Your task to perform on an android device: turn notification dots off Image 0: 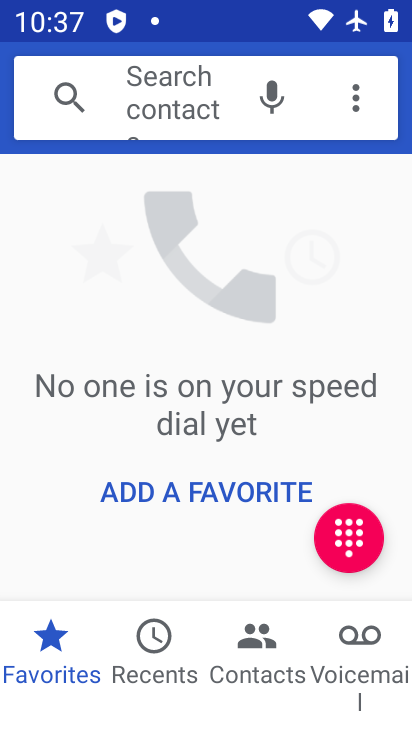
Step 0: press back button
Your task to perform on an android device: turn notification dots off Image 1: 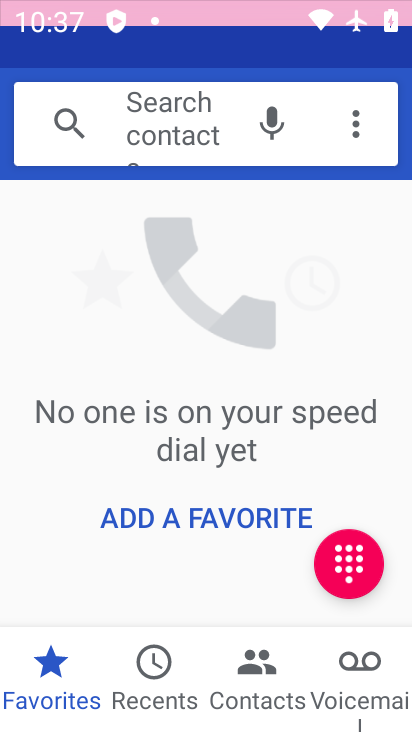
Step 1: press back button
Your task to perform on an android device: turn notification dots off Image 2: 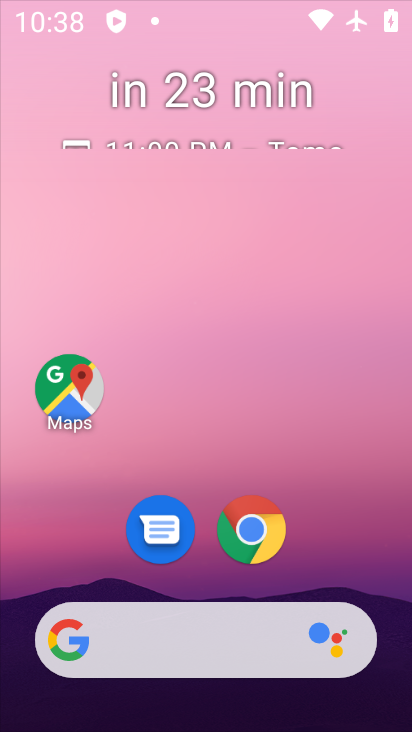
Step 2: press back button
Your task to perform on an android device: turn notification dots off Image 3: 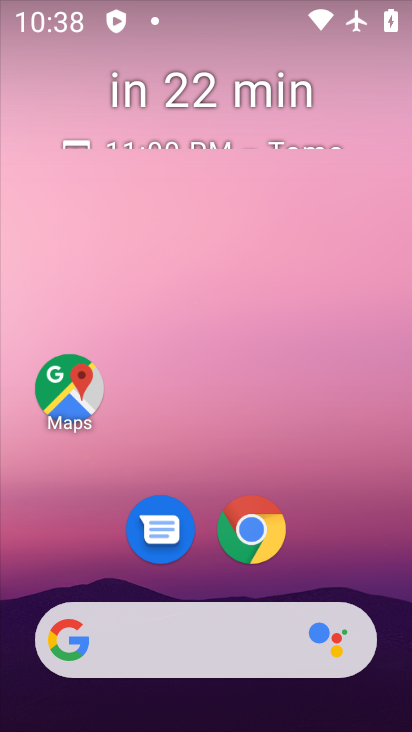
Step 3: drag from (303, 571) to (125, 289)
Your task to perform on an android device: turn notification dots off Image 4: 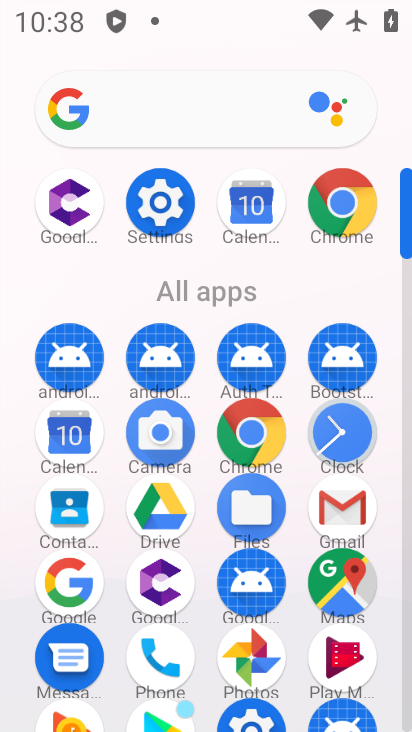
Step 4: click (158, 195)
Your task to perform on an android device: turn notification dots off Image 5: 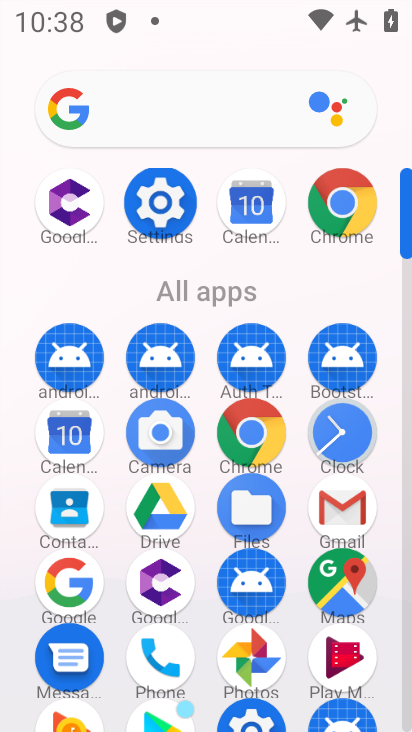
Step 5: click (158, 195)
Your task to perform on an android device: turn notification dots off Image 6: 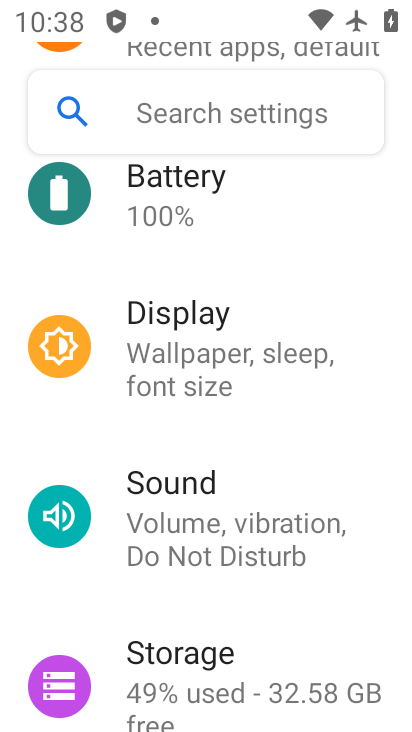
Step 6: drag from (232, 523) to (168, 171)
Your task to perform on an android device: turn notification dots off Image 7: 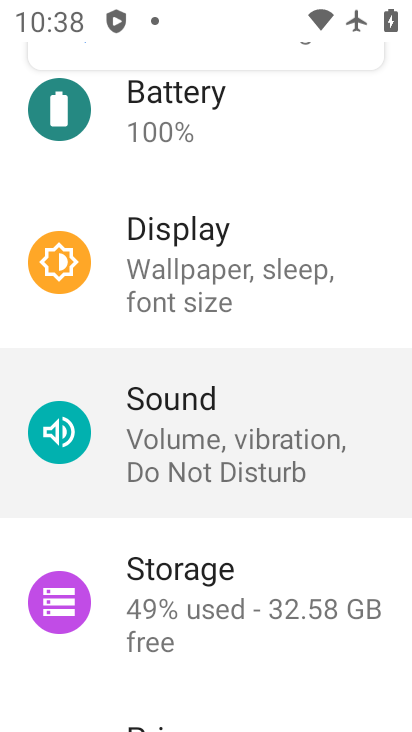
Step 7: drag from (270, 432) to (191, 228)
Your task to perform on an android device: turn notification dots off Image 8: 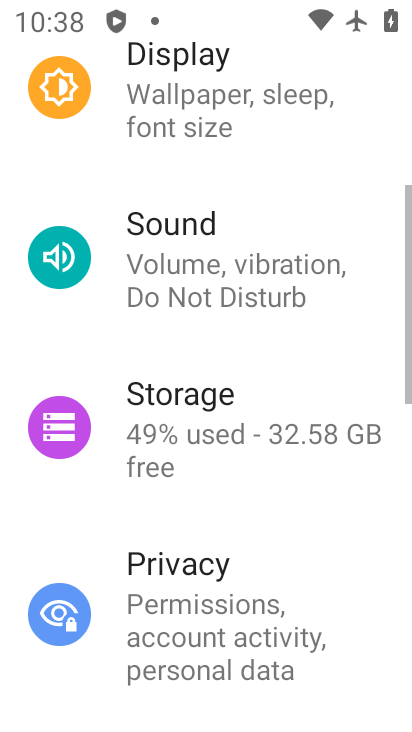
Step 8: drag from (235, 432) to (168, 253)
Your task to perform on an android device: turn notification dots off Image 9: 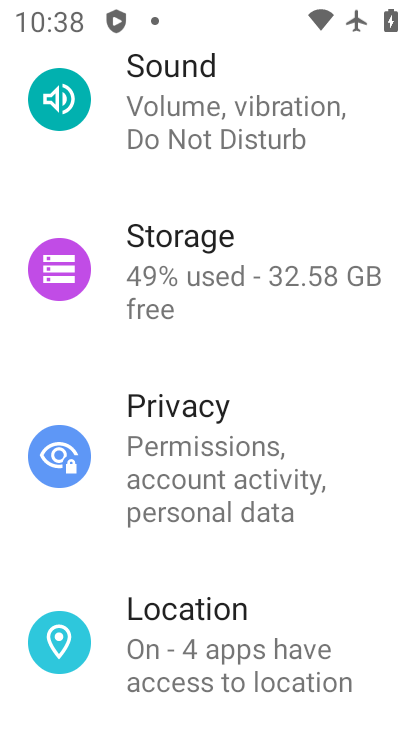
Step 9: drag from (258, 560) to (180, 166)
Your task to perform on an android device: turn notification dots off Image 10: 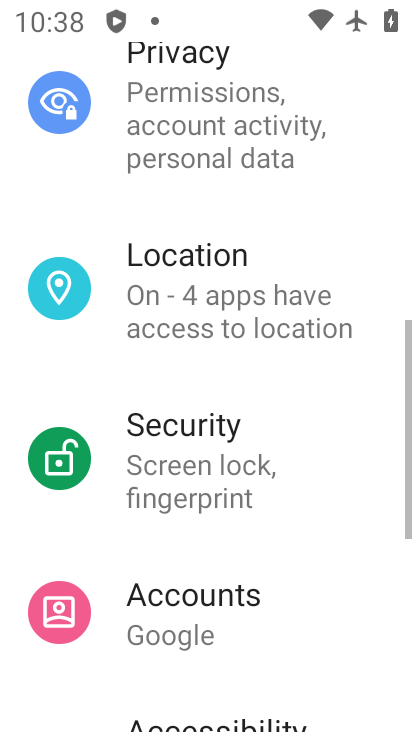
Step 10: drag from (294, 563) to (189, 191)
Your task to perform on an android device: turn notification dots off Image 11: 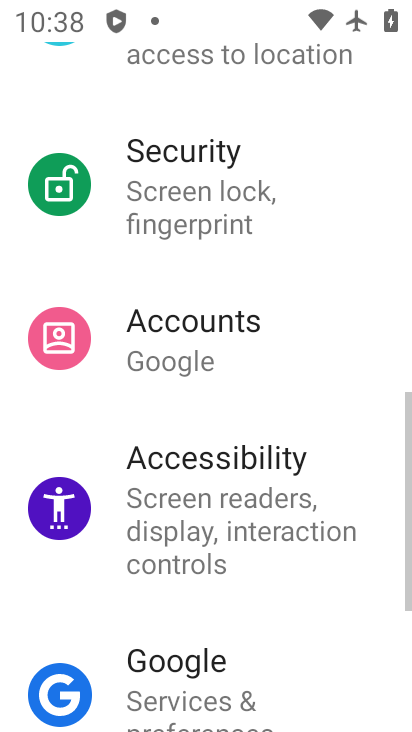
Step 11: drag from (176, 408) to (164, 255)
Your task to perform on an android device: turn notification dots off Image 12: 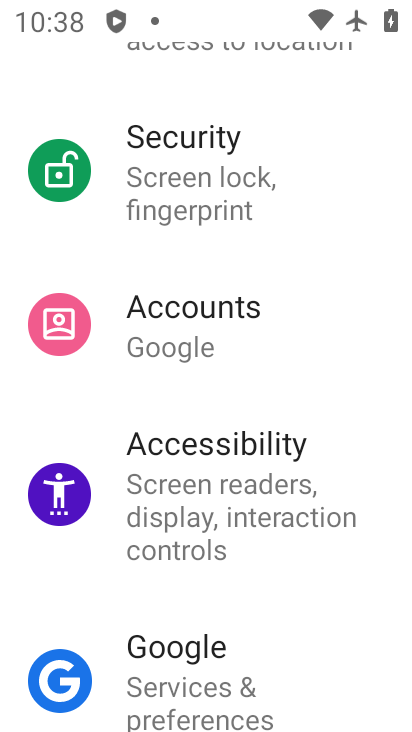
Step 12: drag from (182, 587) to (162, 321)
Your task to perform on an android device: turn notification dots off Image 13: 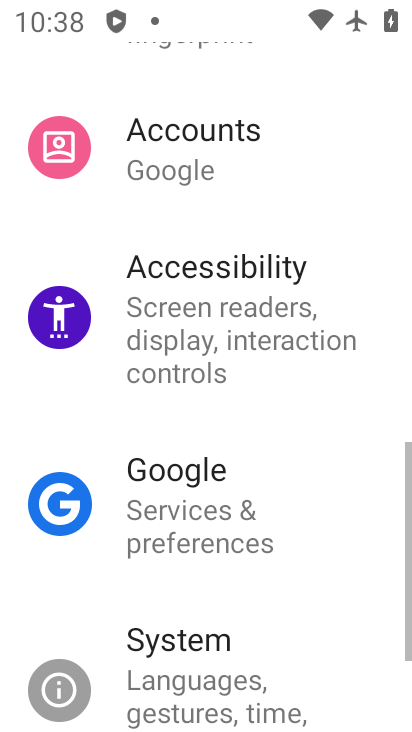
Step 13: drag from (260, 478) to (206, 133)
Your task to perform on an android device: turn notification dots off Image 14: 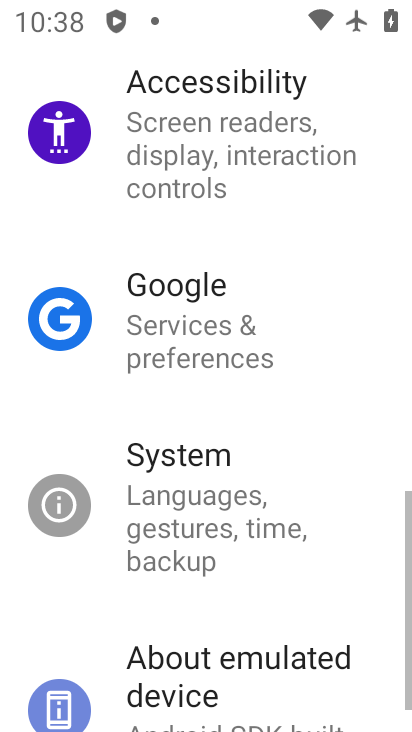
Step 14: drag from (217, 497) to (166, 164)
Your task to perform on an android device: turn notification dots off Image 15: 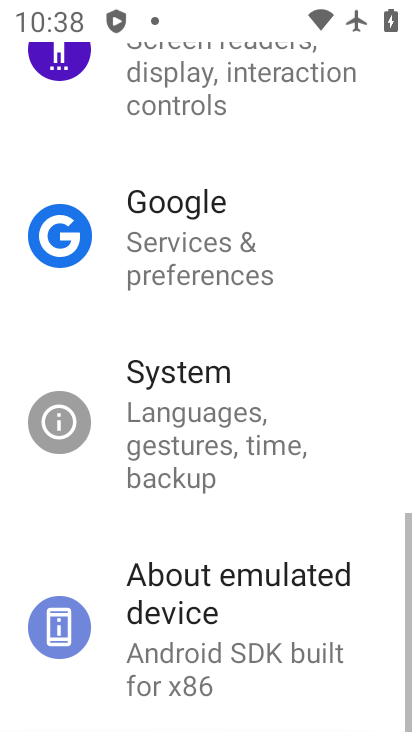
Step 15: drag from (189, 519) to (88, 119)
Your task to perform on an android device: turn notification dots off Image 16: 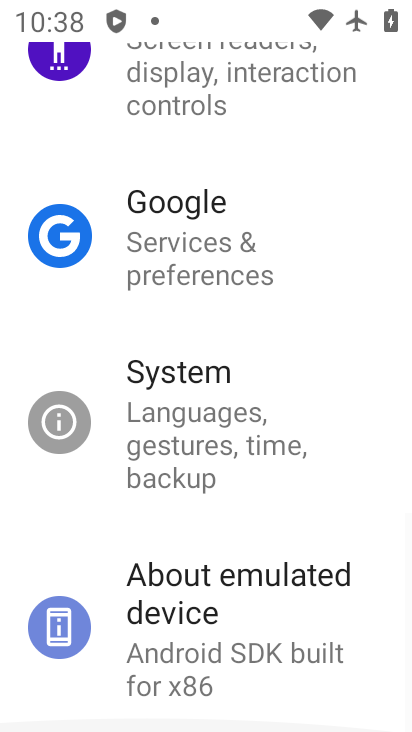
Step 16: drag from (182, 521) to (130, 157)
Your task to perform on an android device: turn notification dots off Image 17: 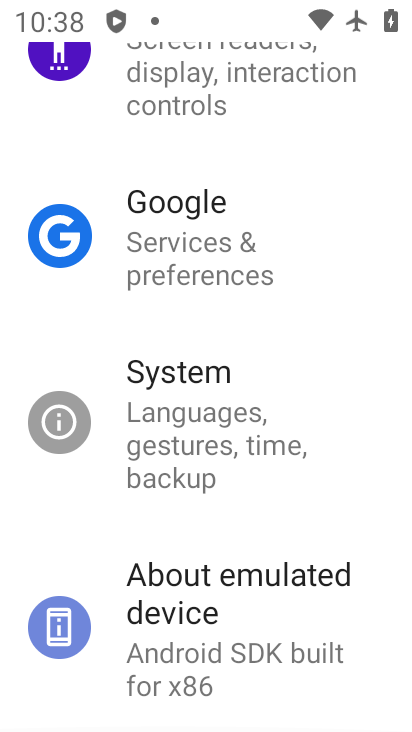
Step 17: drag from (190, 462) to (170, 321)
Your task to perform on an android device: turn notification dots off Image 18: 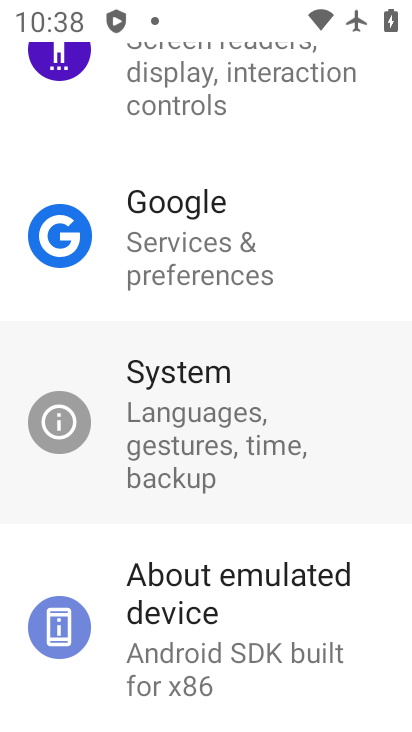
Step 18: drag from (229, 493) to (186, 151)
Your task to perform on an android device: turn notification dots off Image 19: 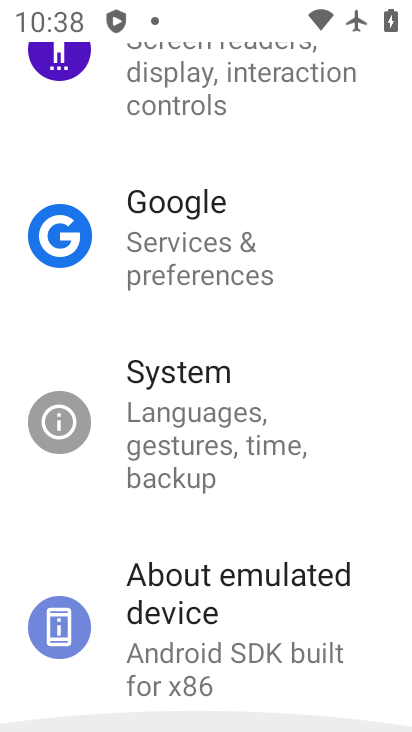
Step 19: drag from (252, 523) to (160, 219)
Your task to perform on an android device: turn notification dots off Image 20: 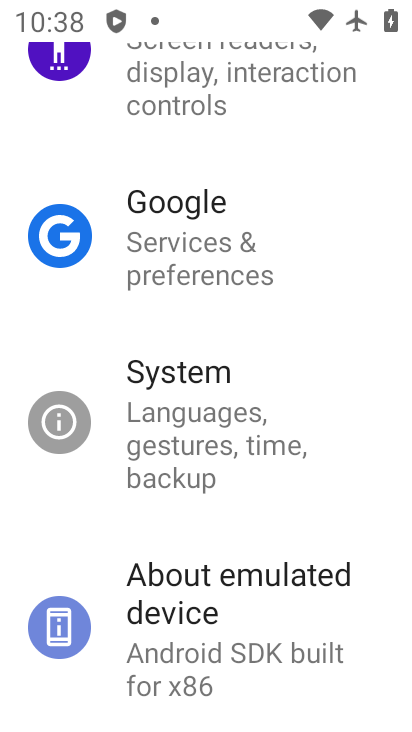
Step 20: drag from (205, 331) to (228, 482)
Your task to perform on an android device: turn notification dots off Image 21: 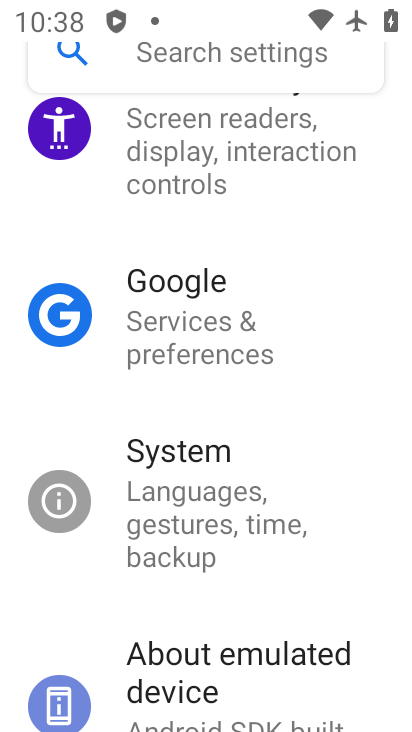
Step 21: drag from (204, 240) to (264, 533)
Your task to perform on an android device: turn notification dots off Image 22: 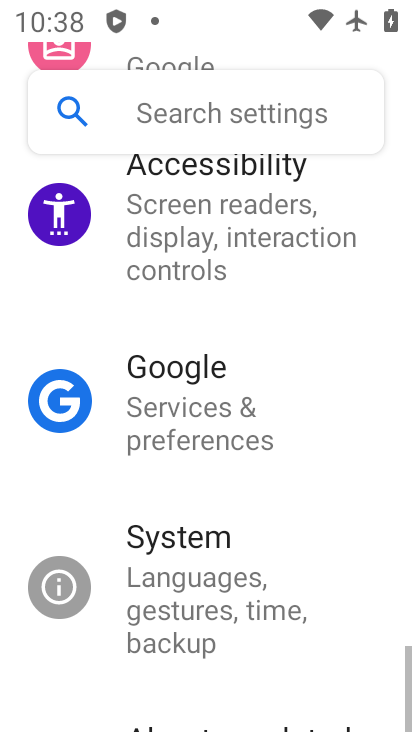
Step 22: drag from (199, 241) to (235, 478)
Your task to perform on an android device: turn notification dots off Image 23: 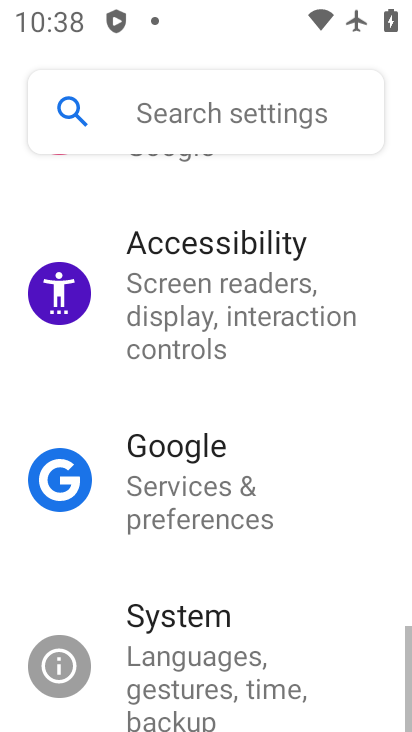
Step 23: drag from (217, 455) to (231, 538)
Your task to perform on an android device: turn notification dots off Image 24: 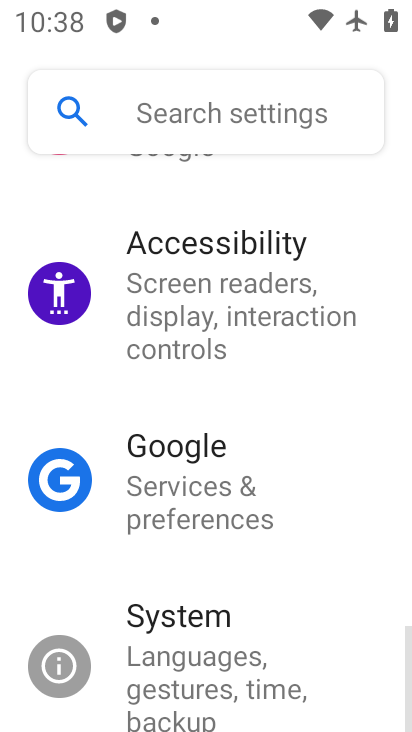
Step 24: drag from (164, 240) to (192, 565)
Your task to perform on an android device: turn notification dots off Image 25: 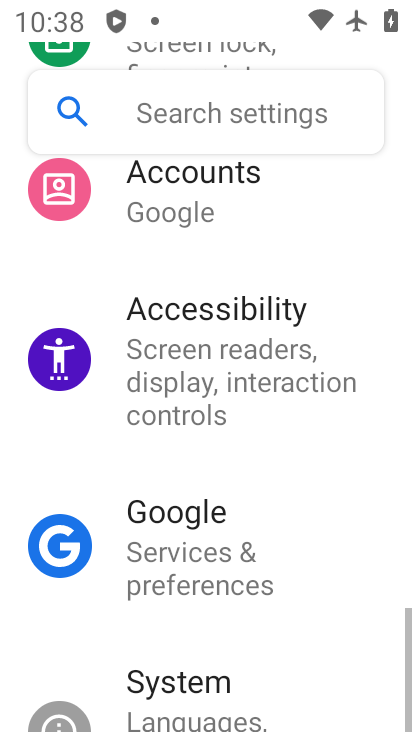
Step 25: drag from (162, 339) to (206, 526)
Your task to perform on an android device: turn notification dots off Image 26: 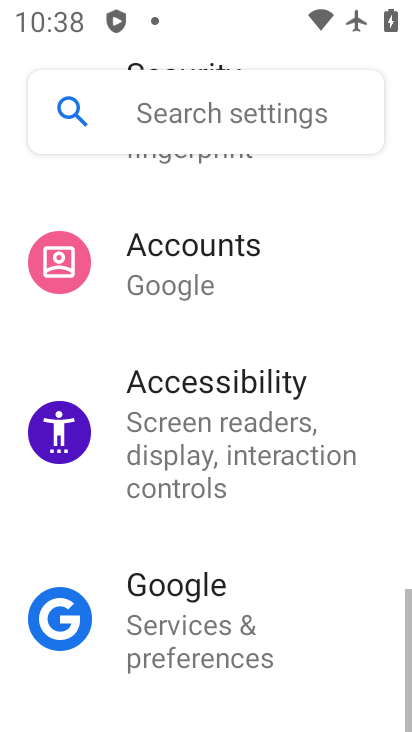
Step 26: drag from (165, 271) to (200, 514)
Your task to perform on an android device: turn notification dots off Image 27: 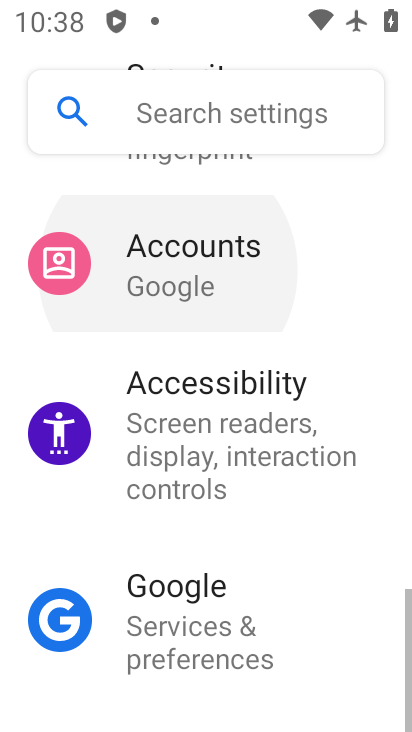
Step 27: drag from (155, 292) to (223, 544)
Your task to perform on an android device: turn notification dots off Image 28: 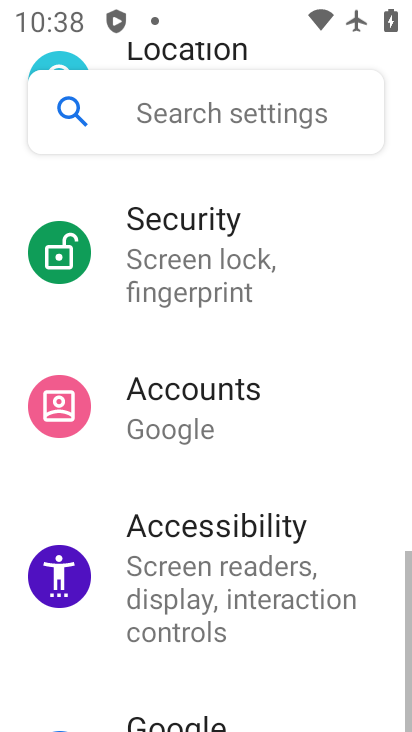
Step 28: drag from (222, 499) to (239, 558)
Your task to perform on an android device: turn notification dots off Image 29: 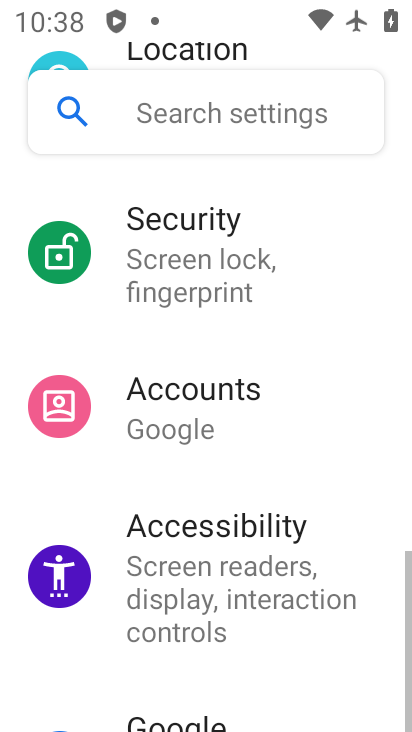
Step 29: drag from (203, 325) to (224, 542)
Your task to perform on an android device: turn notification dots off Image 30: 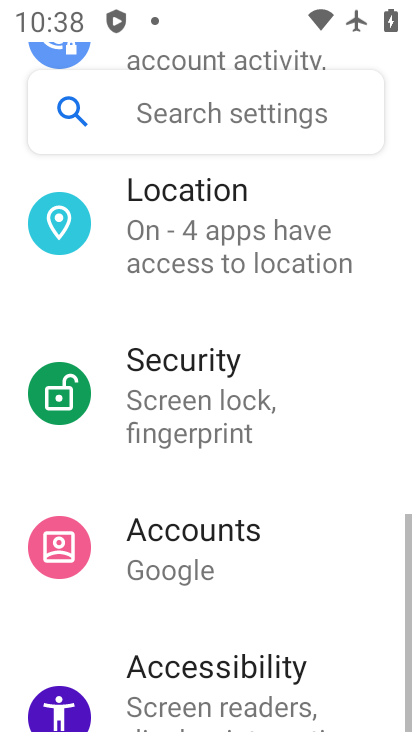
Step 30: drag from (206, 298) to (243, 557)
Your task to perform on an android device: turn notification dots off Image 31: 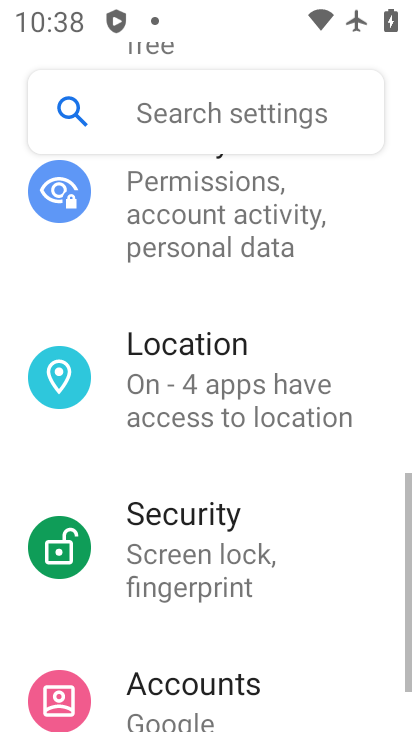
Step 31: click (228, 523)
Your task to perform on an android device: turn notification dots off Image 32: 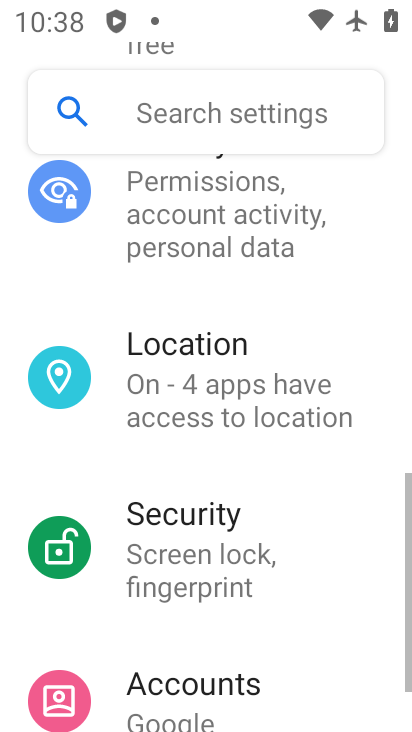
Step 32: drag from (156, 249) to (209, 521)
Your task to perform on an android device: turn notification dots off Image 33: 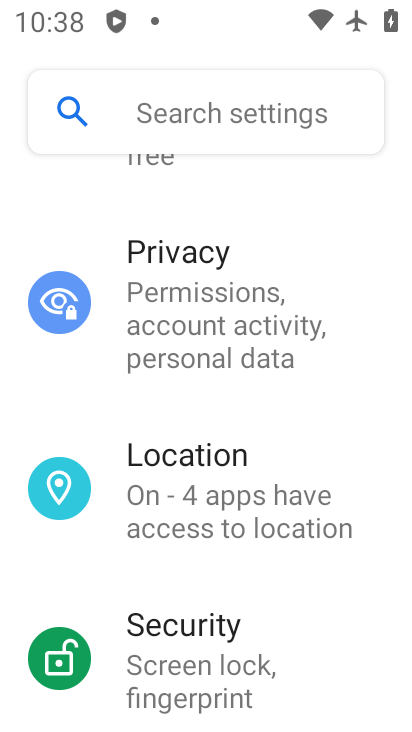
Step 33: drag from (210, 299) to (258, 552)
Your task to perform on an android device: turn notification dots off Image 34: 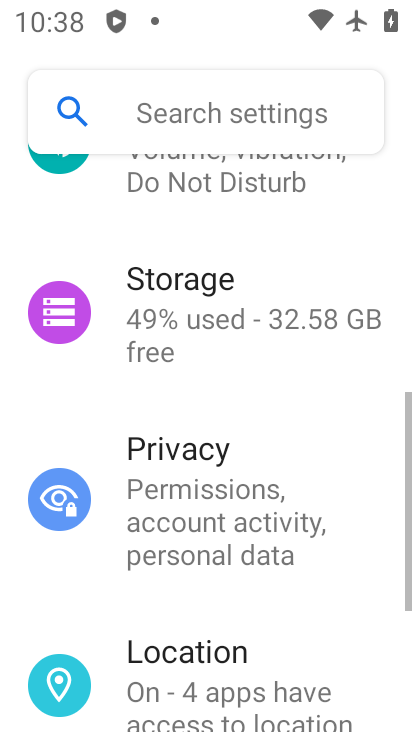
Step 34: drag from (160, 311) to (230, 548)
Your task to perform on an android device: turn notification dots off Image 35: 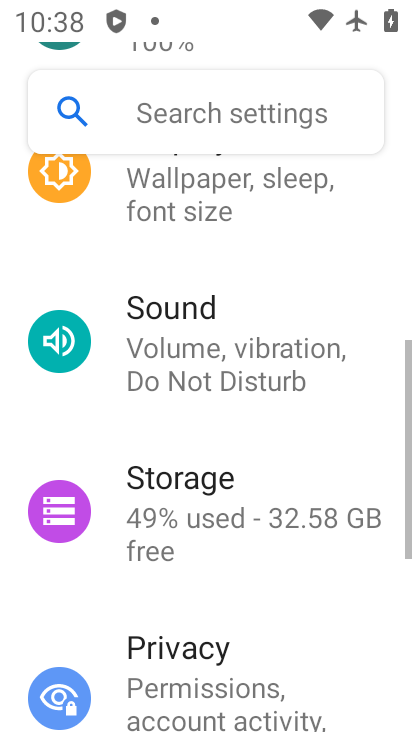
Step 35: drag from (191, 300) to (216, 603)
Your task to perform on an android device: turn notification dots off Image 36: 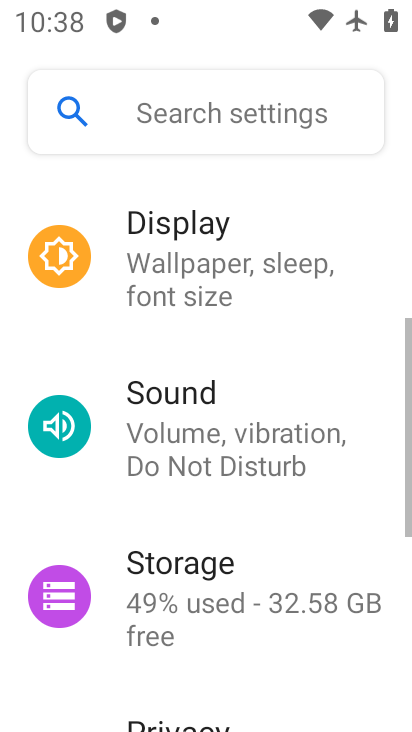
Step 36: drag from (197, 446) to (226, 568)
Your task to perform on an android device: turn notification dots off Image 37: 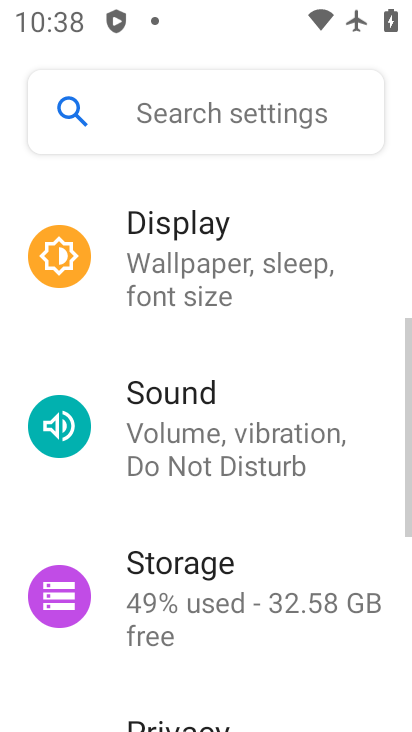
Step 37: drag from (149, 274) to (206, 613)
Your task to perform on an android device: turn notification dots off Image 38: 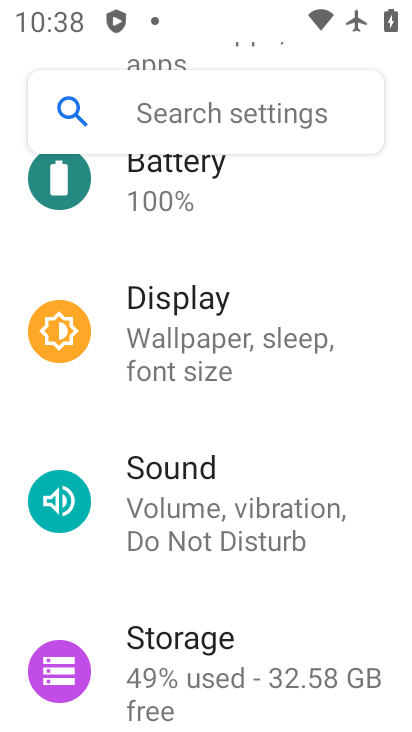
Step 38: drag from (184, 283) to (222, 432)
Your task to perform on an android device: turn notification dots off Image 39: 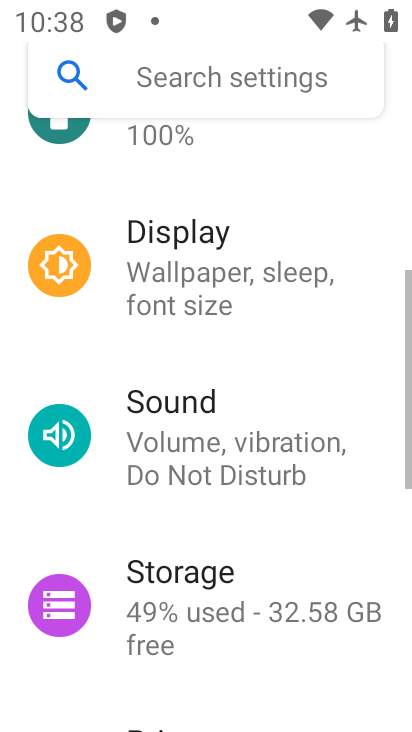
Step 39: drag from (165, 231) to (202, 449)
Your task to perform on an android device: turn notification dots off Image 40: 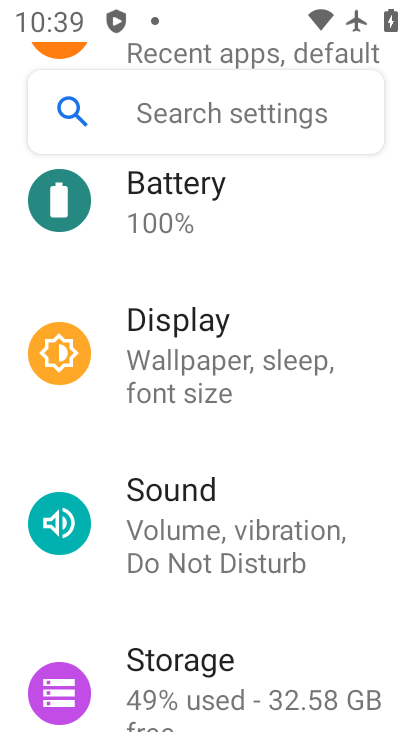
Step 40: drag from (185, 242) to (211, 587)
Your task to perform on an android device: turn notification dots off Image 41: 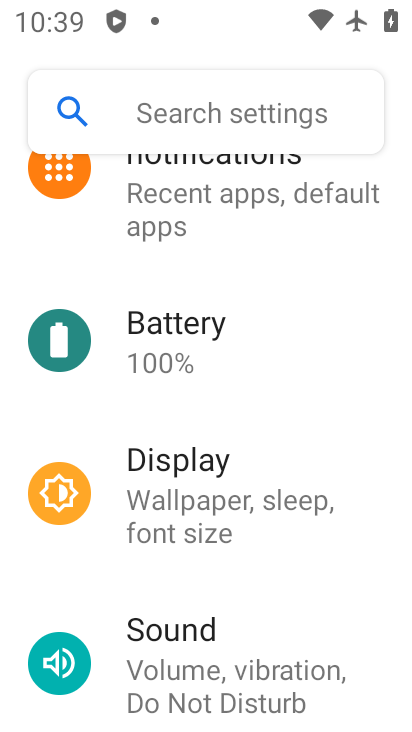
Step 41: click (291, 568)
Your task to perform on an android device: turn notification dots off Image 42: 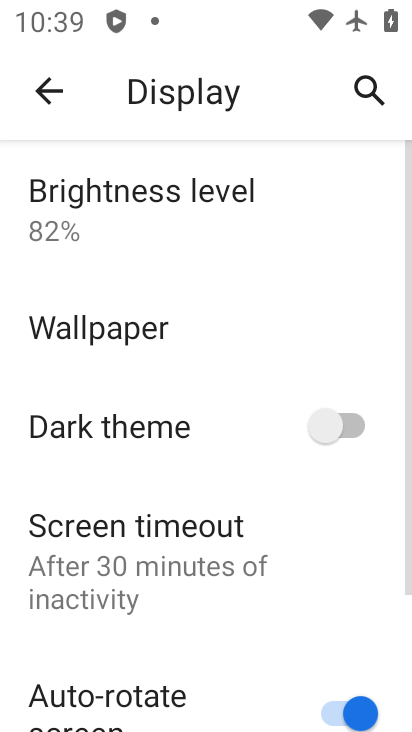
Step 42: click (41, 87)
Your task to perform on an android device: turn notification dots off Image 43: 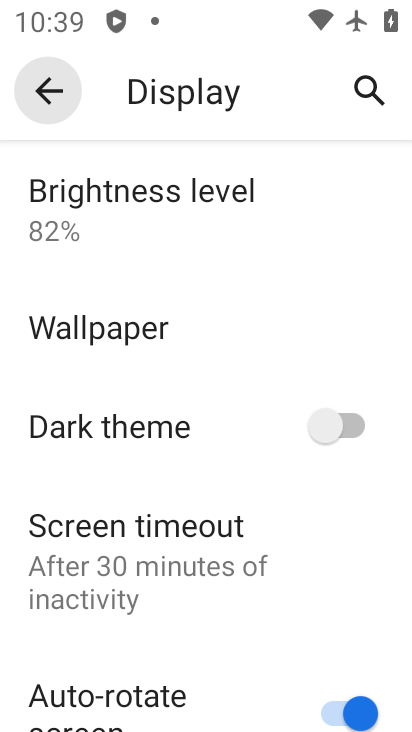
Step 43: click (43, 99)
Your task to perform on an android device: turn notification dots off Image 44: 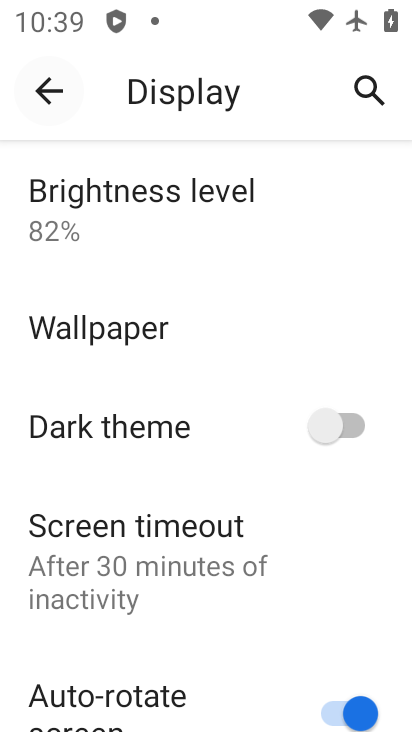
Step 44: click (43, 99)
Your task to perform on an android device: turn notification dots off Image 45: 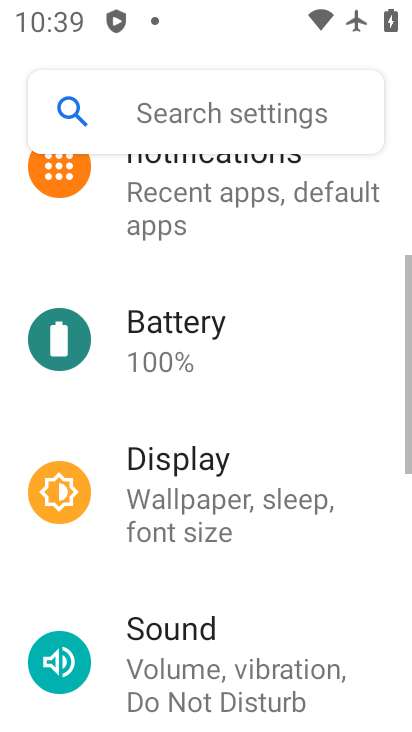
Step 45: drag from (186, 215) to (235, 545)
Your task to perform on an android device: turn notification dots off Image 46: 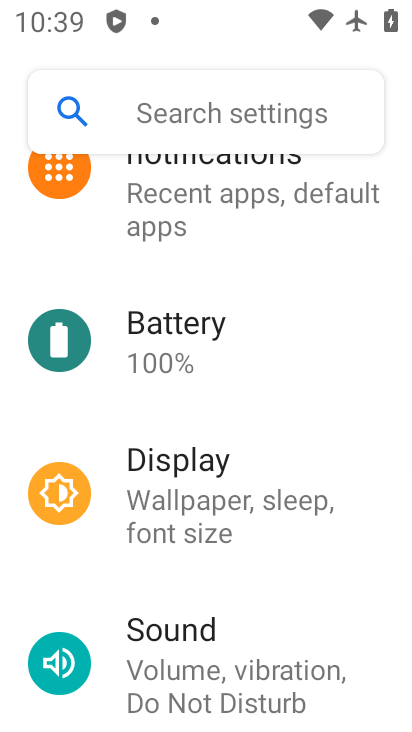
Step 46: drag from (219, 351) to (270, 590)
Your task to perform on an android device: turn notification dots off Image 47: 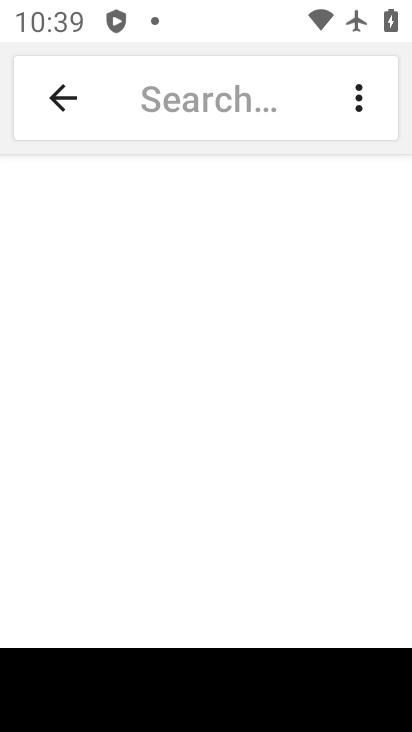
Step 47: click (53, 100)
Your task to perform on an android device: turn notification dots off Image 48: 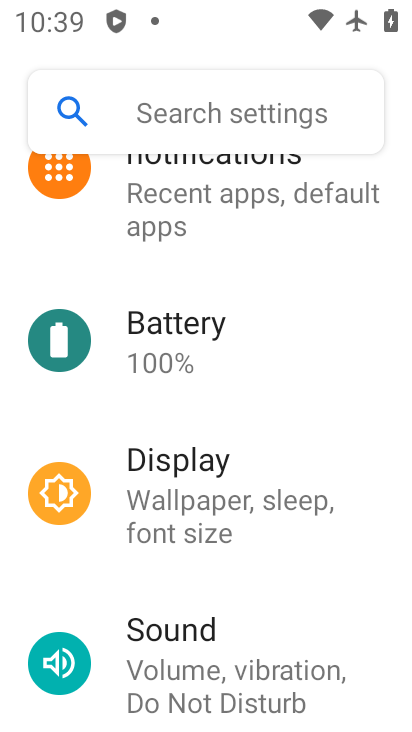
Step 48: click (182, 183)
Your task to perform on an android device: turn notification dots off Image 49: 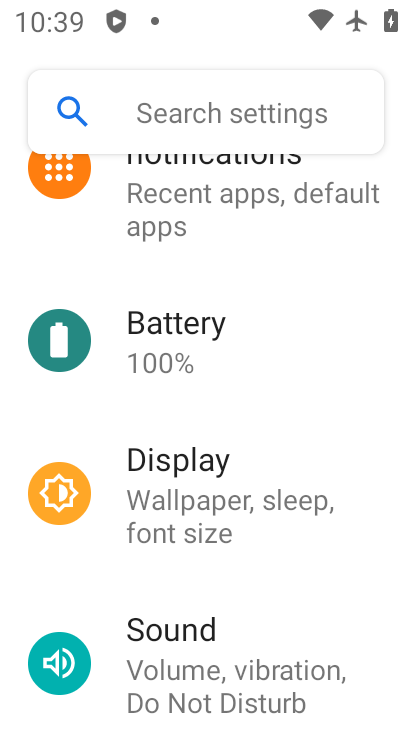
Step 49: click (182, 183)
Your task to perform on an android device: turn notification dots off Image 50: 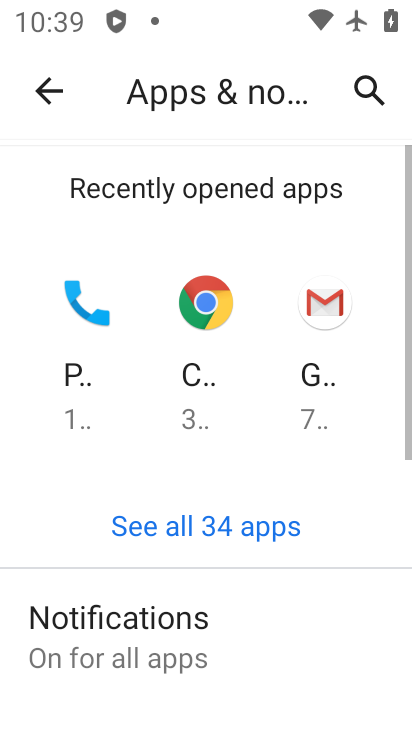
Step 50: drag from (205, 632) to (144, 285)
Your task to perform on an android device: turn notification dots off Image 51: 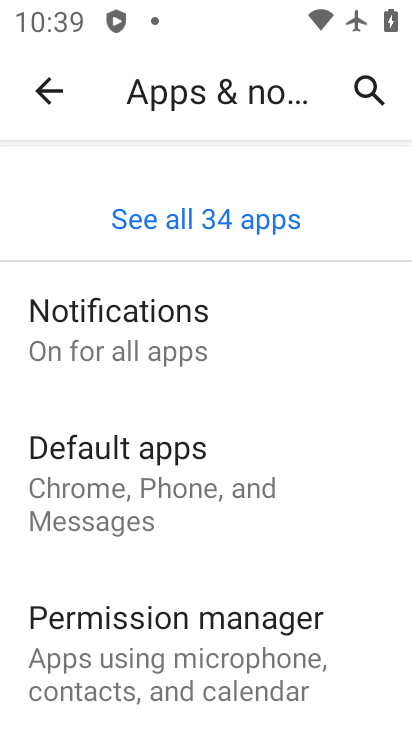
Step 51: click (116, 334)
Your task to perform on an android device: turn notification dots off Image 52: 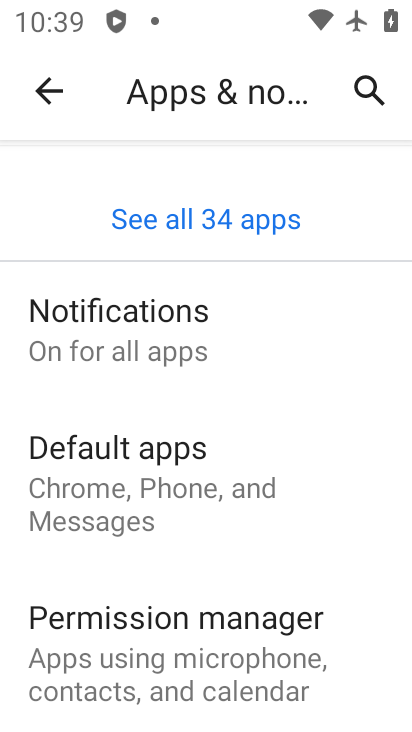
Step 52: click (116, 334)
Your task to perform on an android device: turn notification dots off Image 53: 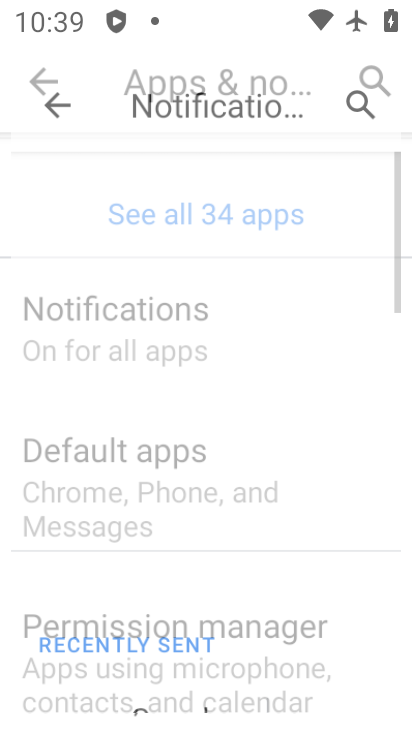
Step 53: click (116, 334)
Your task to perform on an android device: turn notification dots off Image 54: 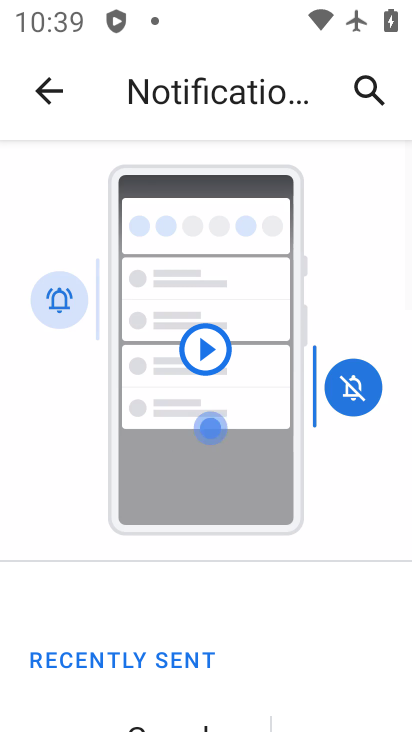
Step 54: drag from (271, 607) to (242, 123)
Your task to perform on an android device: turn notification dots off Image 55: 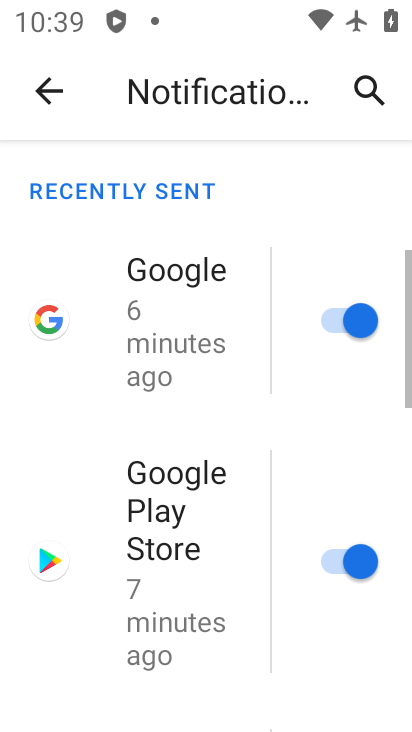
Step 55: drag from (268, 484) to (235, 96)
Your task to perform on an android device: turn notification dots off Image 56: 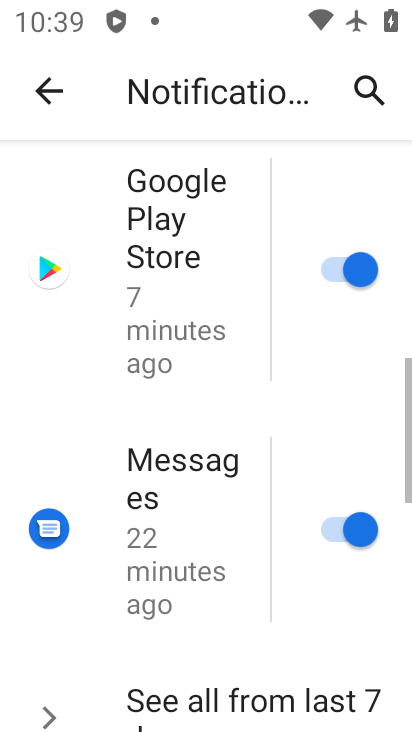
Step 56: drag from (302, 571) to (152, 50)
Your task to perform on an android device: turn notification dots off Image 57: 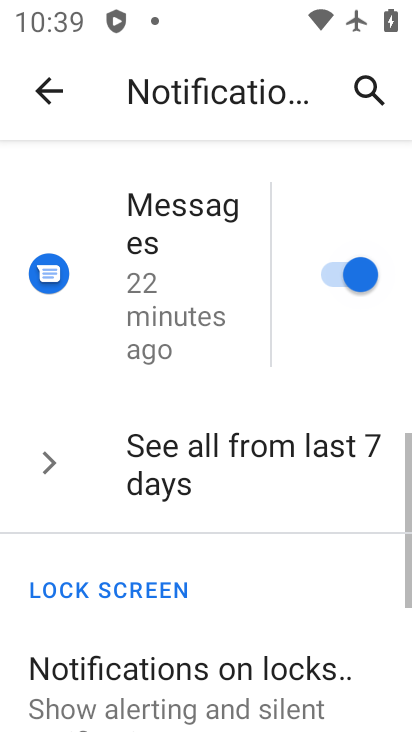
Step 57: drag from (236, 444) to (195, 9)
Your task to perform on an android device: turn notification dots off Image 58: 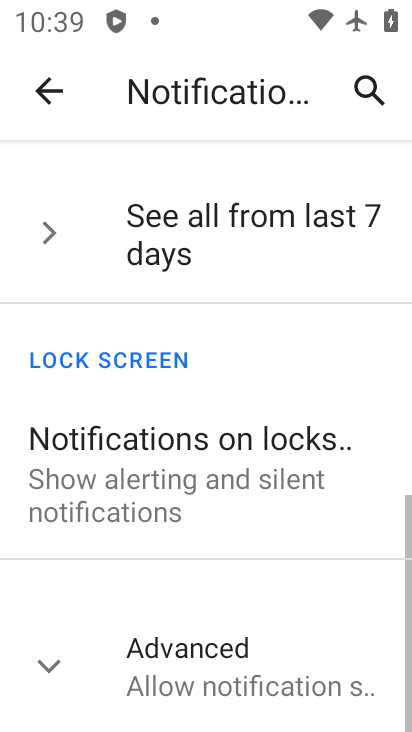
Step 58: drag from (287, 570) to (202, 38)
Your task to perform on an android device: turn notification dots off Image 59: 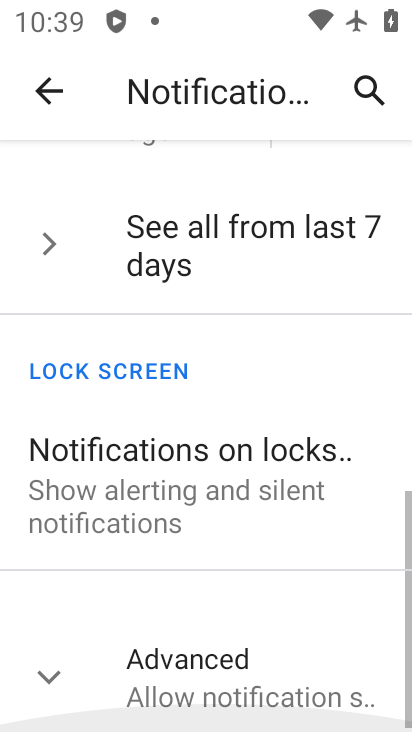
Step 59: drag from (258, 432) to (233, 1)
Your task to perform on an android device: turn notification dots off Image 60: 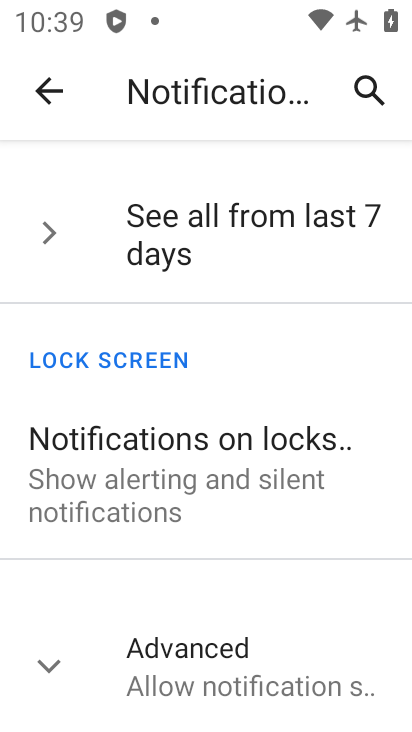
Step 60: click (227, 690)
Your task to perform on an android device: turn notification dots off Image 61: 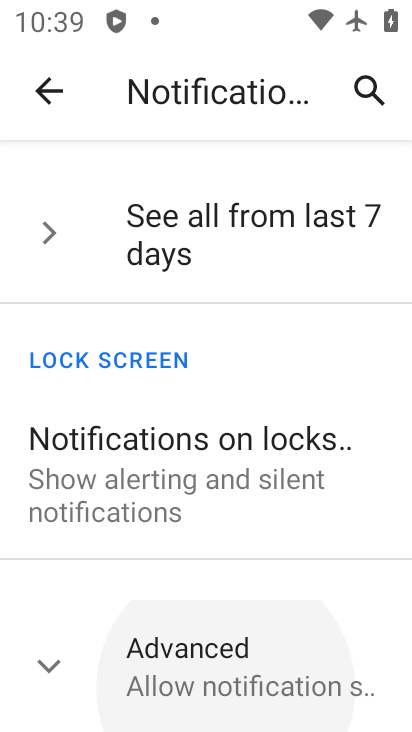
Step 61: click (210, 676)
Your task to perform on an android device: turn notification dots off Image 62: 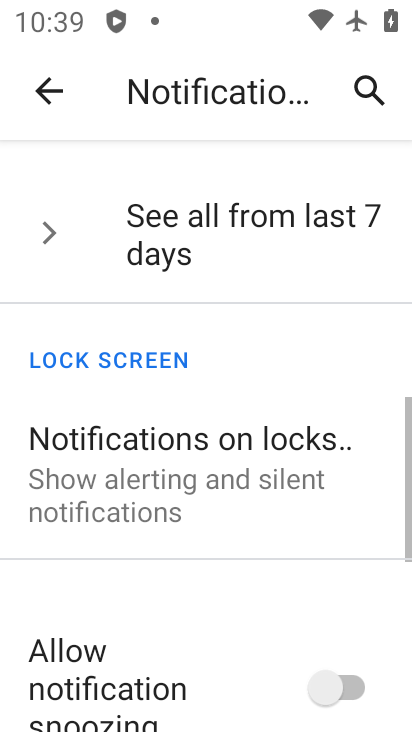
Step 62: click (210, 676)
Your task to perform on an android device: turn notification dots off Image 63: 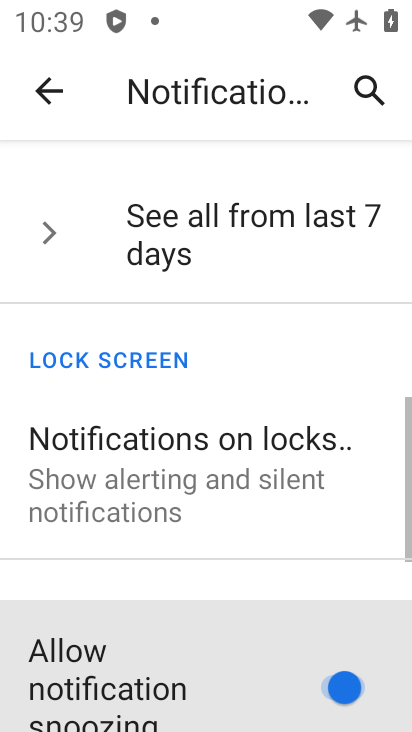
Step 63: click (210, 676)
Your task to perform on an android device: turn notification dots off Image 64: 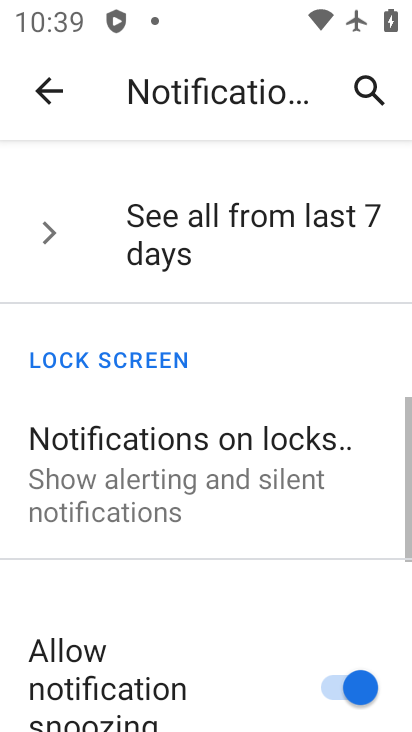
Step 64: drag from (304, 664) to (258, 71)
Your task to perform on an android device: turn notification dots off Image 65: 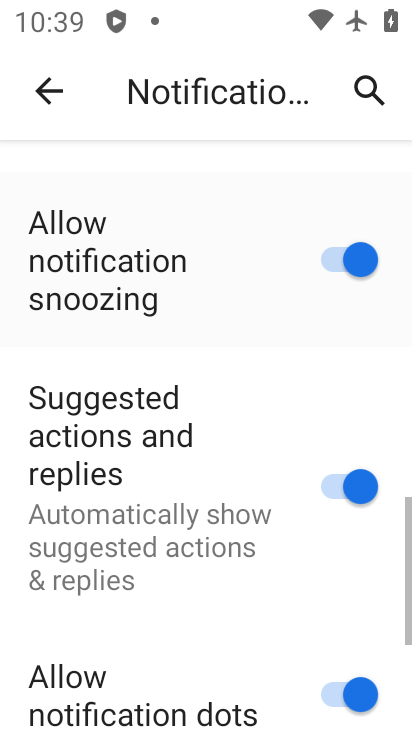
Step 65: drag from (247, 585) to (209, 310)
Your task to perform on an android device: turn notification dots off Image 66: 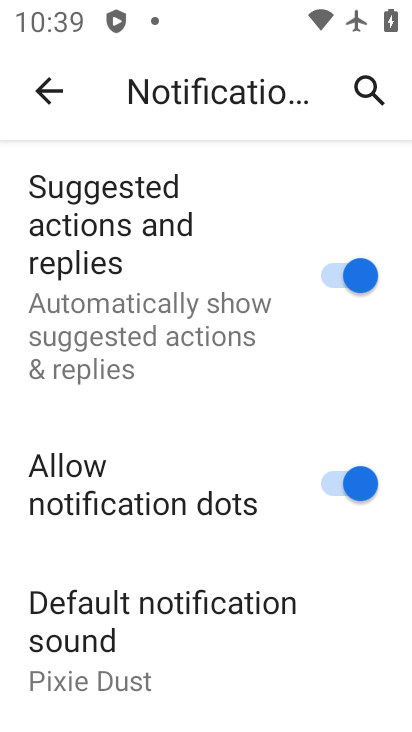
Step 66: click (343, 474)
Your task to perform on an android device: turn notification dots off Image 67: 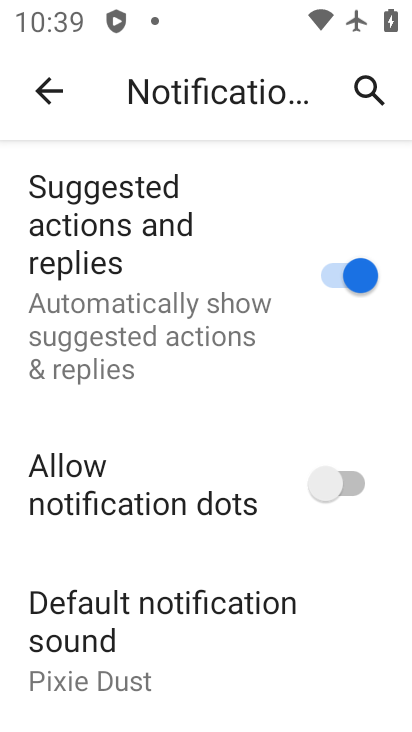
Step 67: task complete